Your task to perform on an android device: Open Google Maps and go to "Timeline" Image 0: 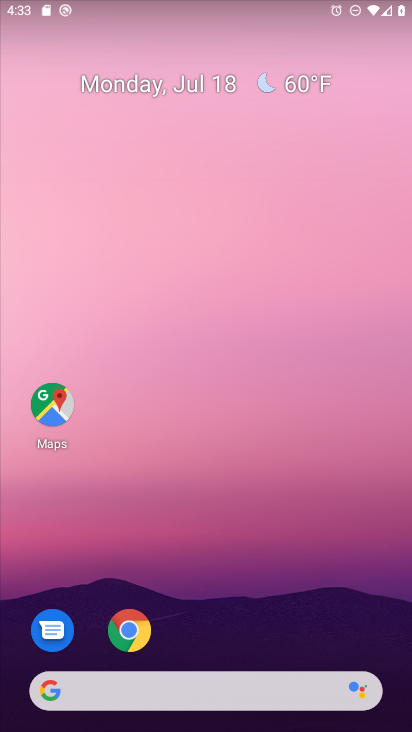
Step 0: click (50, 404)
Your task to perform on an android device: Open Google Maps and go to "Timeline" Image 1: 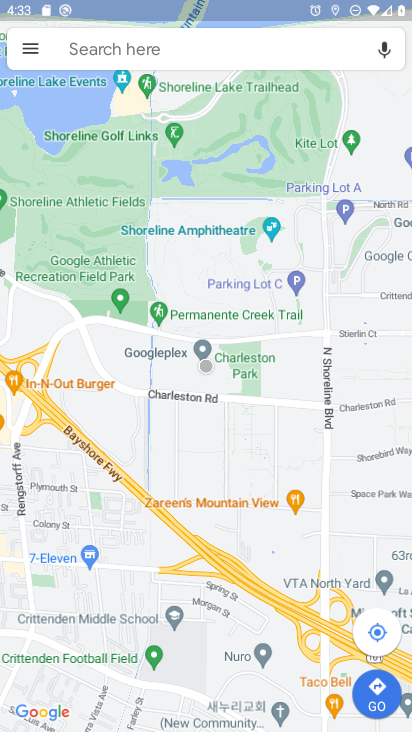
Step 1: click (26, 41)
Your task to perform on an android device: Open Google Maps and go to "Timeline" Image 2: 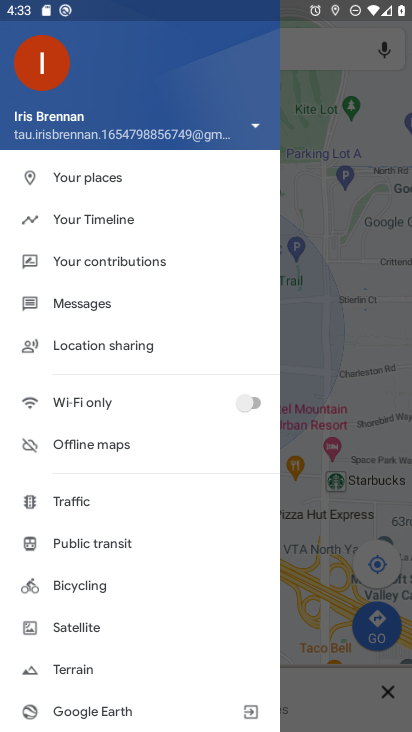
Step 2: click (92, 214)
Your task to perform on an android device: Open Google Maps and go to "Timeline" Image 3: 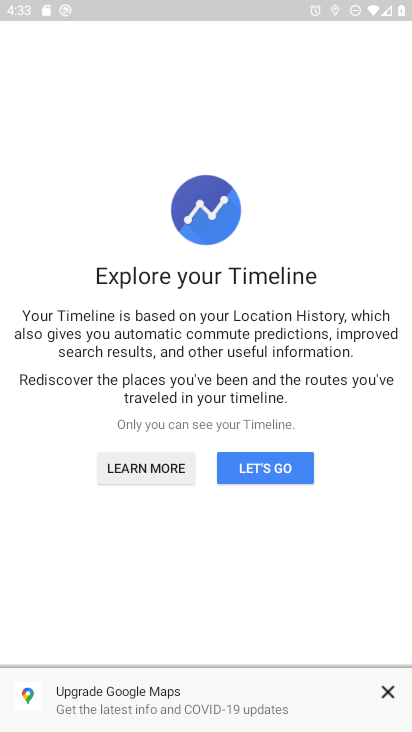
Step 3: click (263, 466)
Your task to perform on an android device: Open Google Maps and go to "Timeline" Image 4: 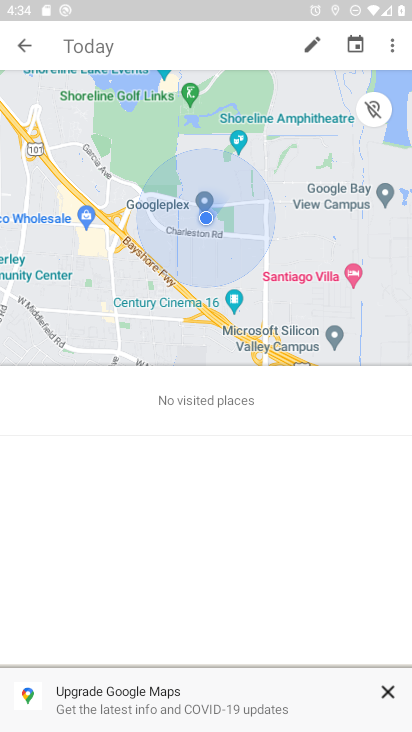
Step 4: task complete